Your task to perform on an android device: empty trash in google photos Image 0: 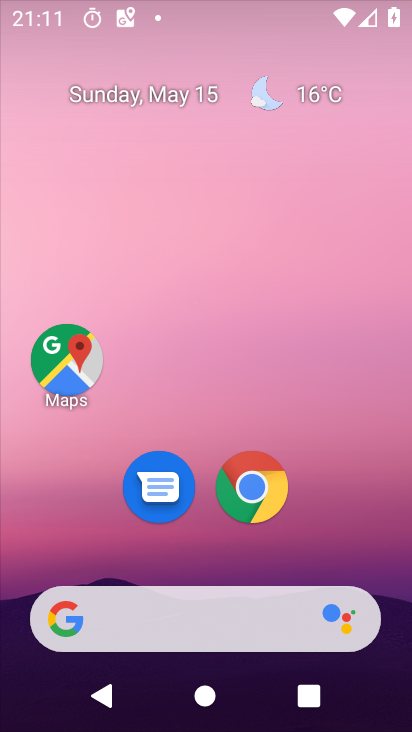
Step 0: drag from (401, 635) to (362, 237)
Your task to perform on an android device: empty trash in google photos Image 1: 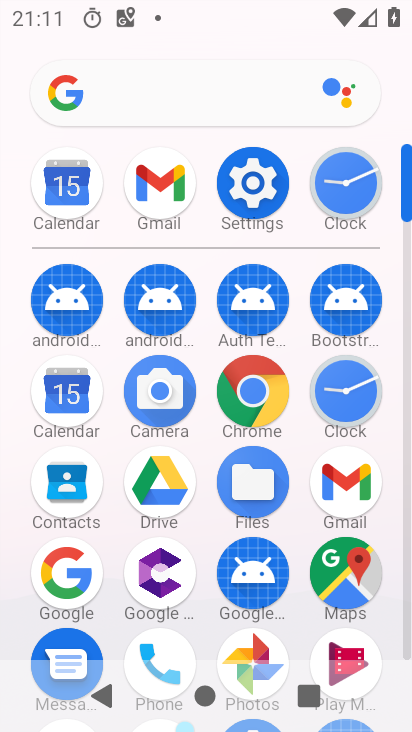
Step 1: click (340, 480)
Your task to perform on an android device: empty trash in google photos Image 2: 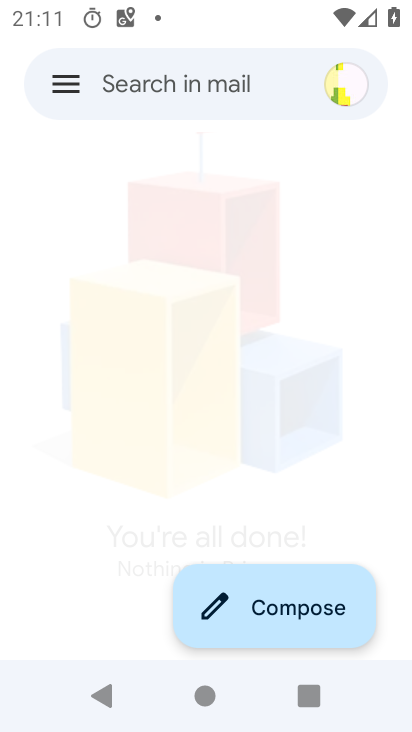
Step 2: press home button
Your task to perform on an android device: empty trash in google photos Image 3: 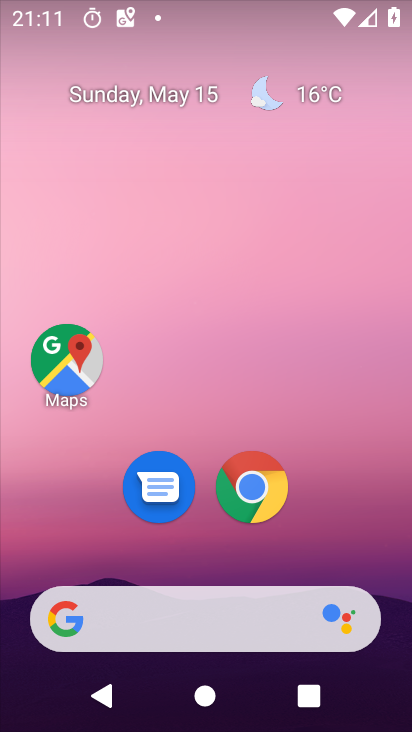
Step 3: drag from (395, 315) to (395, 208)
Your task to perform on an android device: empty trash in google photos Image 4: 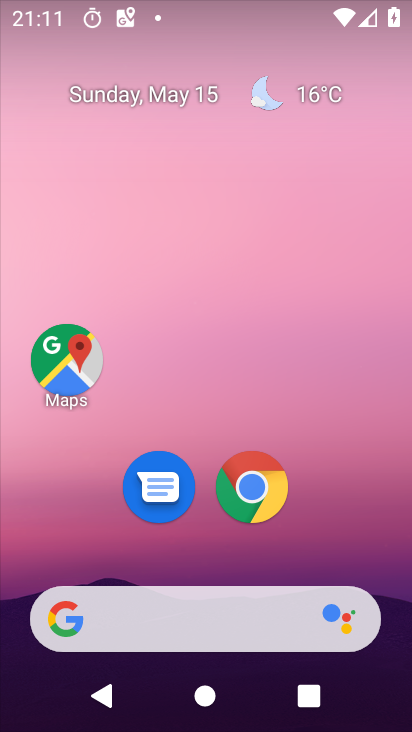
Step 4: drag from (386, 631) to (386, 174)
Your task to perform on an android device: empty trash in google photos Image 5: 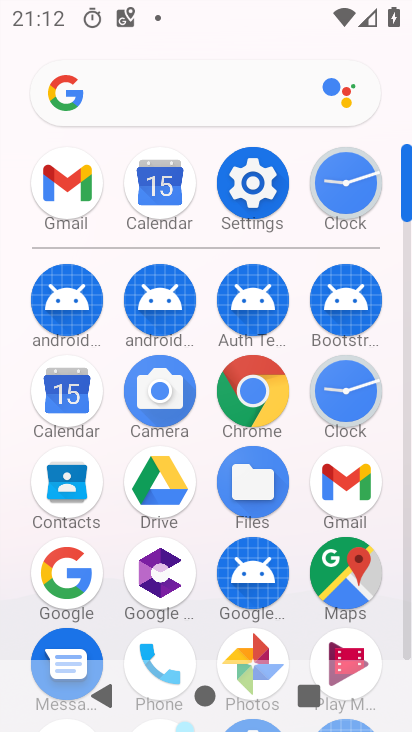
Step 5: click (252, 640)
Your task to perform on an android device: empty trash in google photos Image 6: 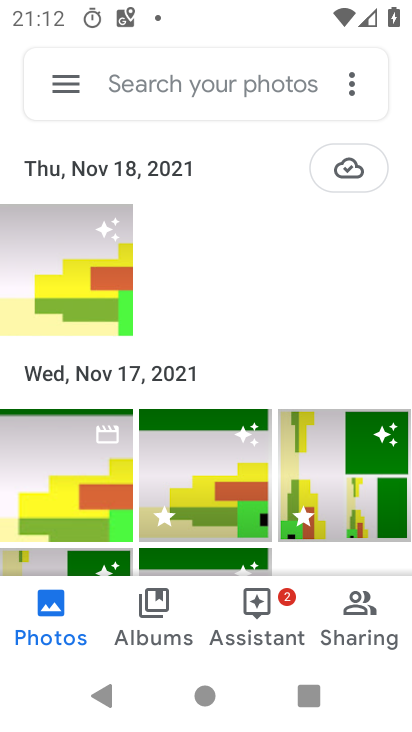
Step 6: click (59, 81)
Your task to perform on an android device: empty trash in google photos Image 7: 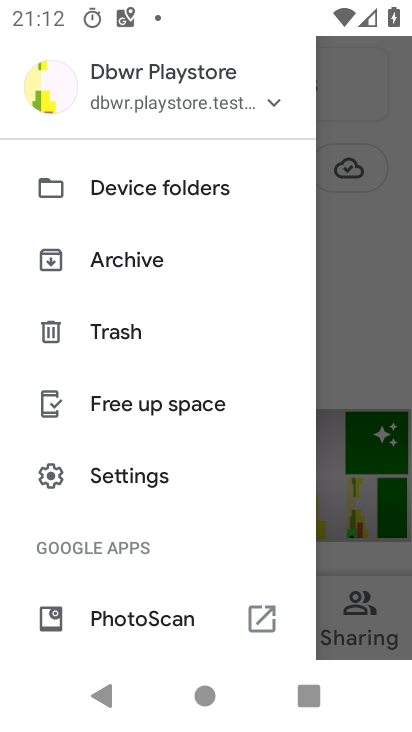
Step 7: click (108, 333)
Your task to perform on an android device: empty trash in google photos Image 8: 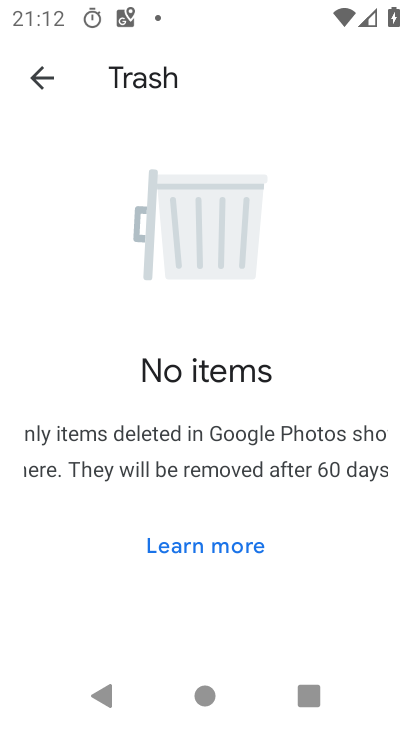
Step 8: task complete